Your task to perform on an android device: Open the calendar and show me this week's events Image 0: 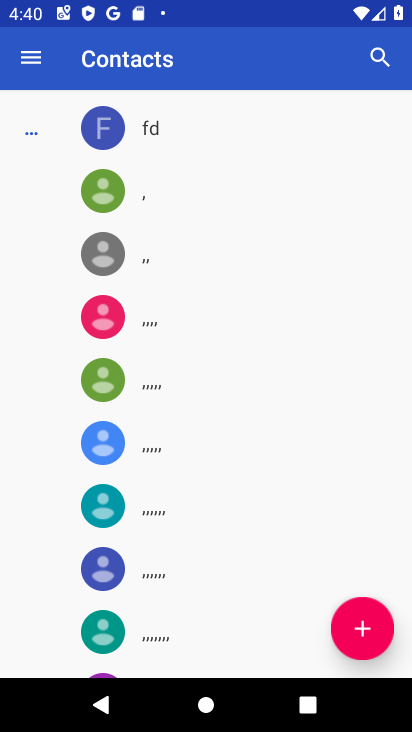
Step 0: press back button
Your task to perform on an android device: Open the calendar and show me this week's events Image 1: 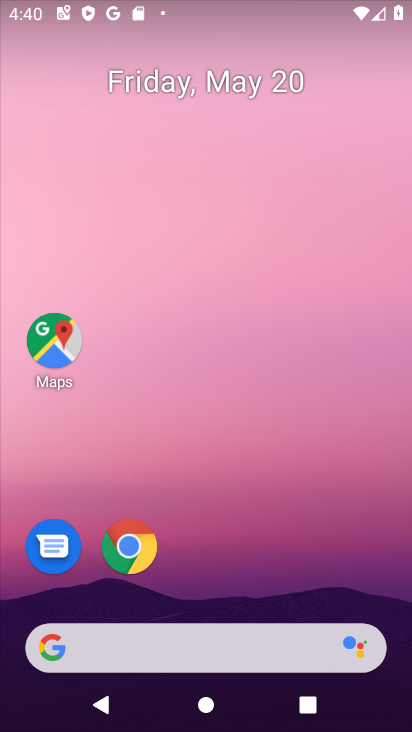
Step 1: drag from (258, 536) to (222, 83)
Your task to perform on an android device: Open the calendar and show me this week's events Image 2: 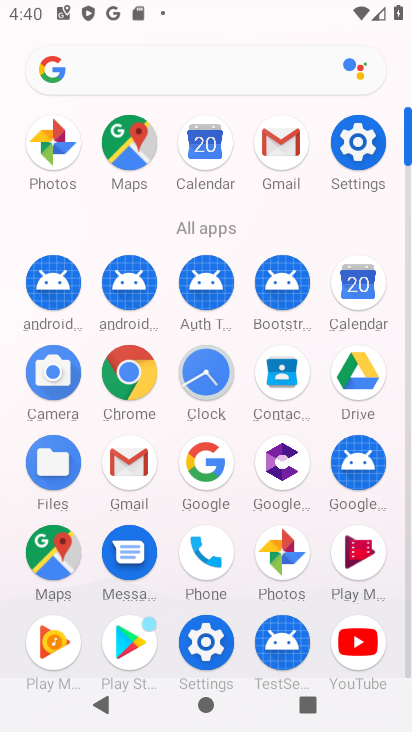
Step 2: click (208, 141)
Your task to perform on an android device: Open the calendar and show me this week's events Image 3: 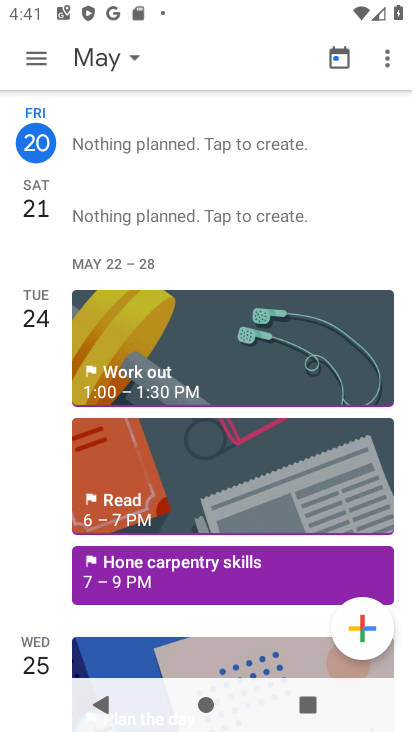
Step 3: click (129, 58)
Your task to perform on an android device: Open the calendar and show me this week's events Image 4: 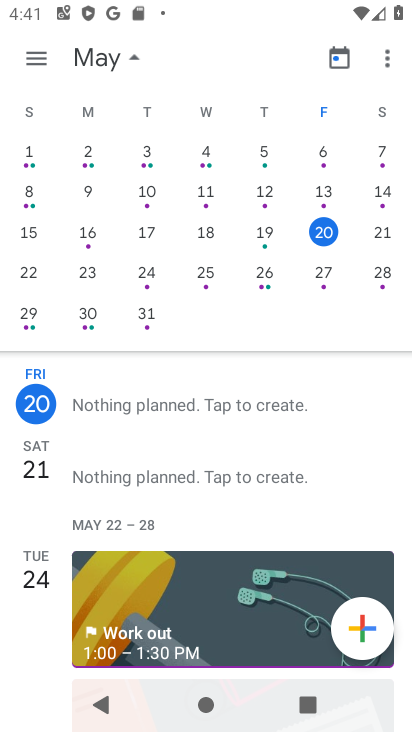
Step 4: click (340, 58)
Your task to perform on an android device: Open the calendar and show me this week's events Image 5: 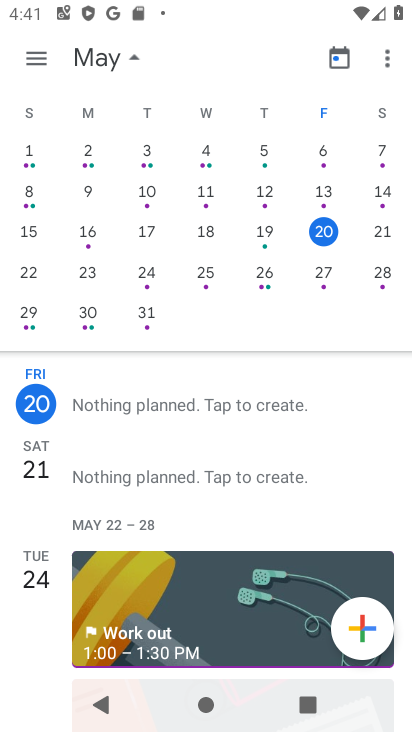
Step 5: click (96, 232)
Your task to perform on an android device: Open the calendar and show me this week's events Image 6: 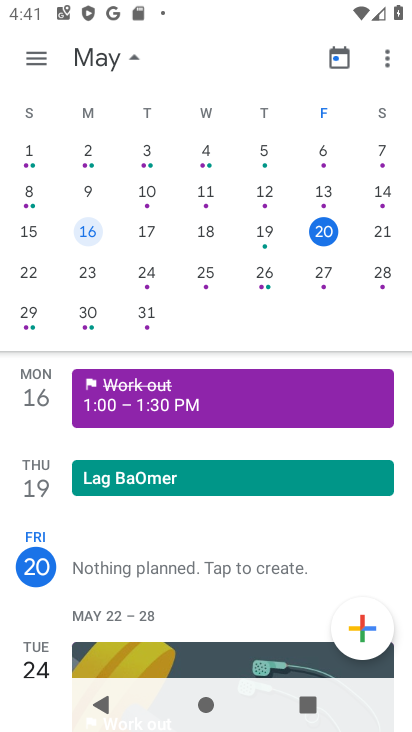
Step 6: click (43, 51)
Your task to perform on an android device: Open the calendar and show me this week's events Image 7: 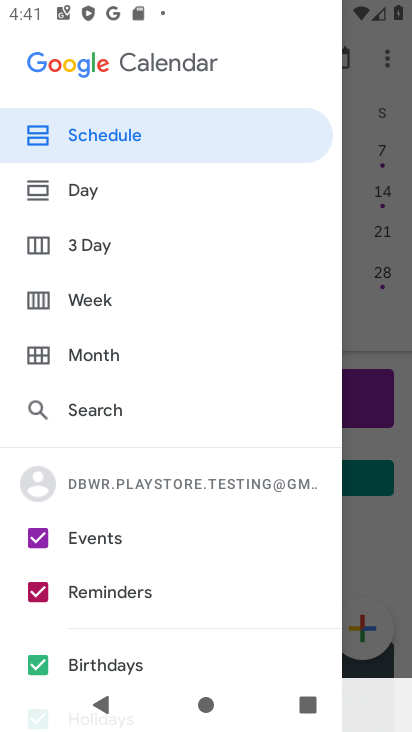
Step 7: click (101, 119)
Your task to perform on an android device: Open the calendar and show me this week's events Image 8: 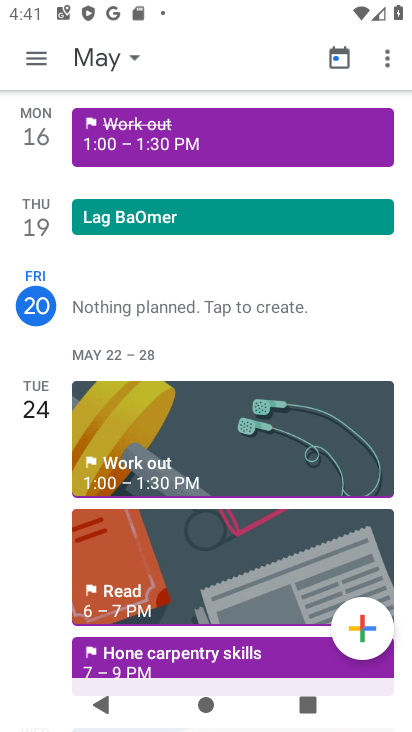
Step 8: task complete